Your task to perform on an android device: Turn on the flashlight Image 0: 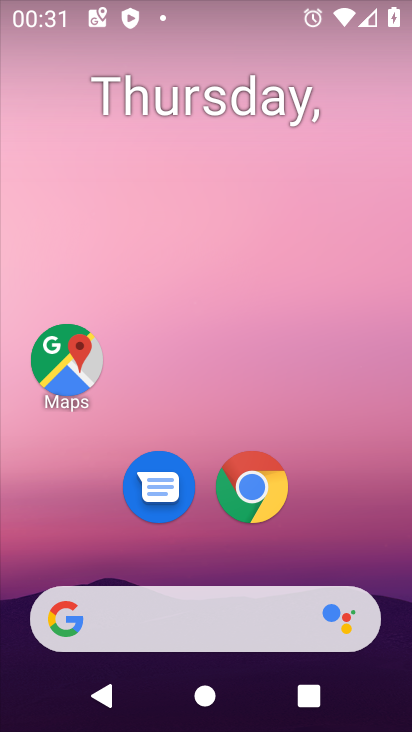
Step 0: drag from (185, 6) to (97, 607)
Your task to perform on an android device: Turn on the flashlight Image 1: 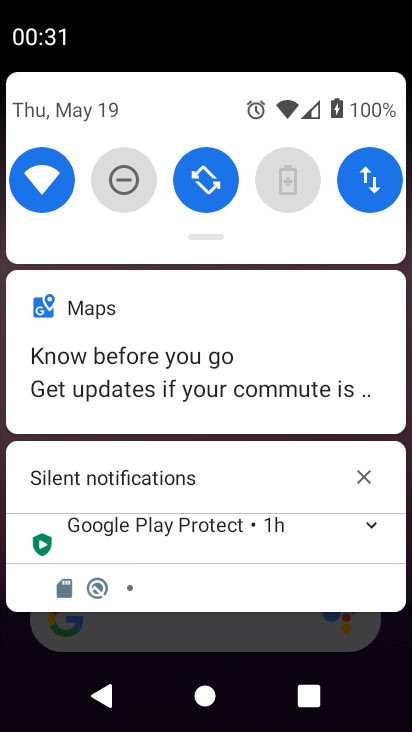
Step 1: task complete